Your task to perform on an android device: Open Google Chrome and open the bookmarks view Image 0: 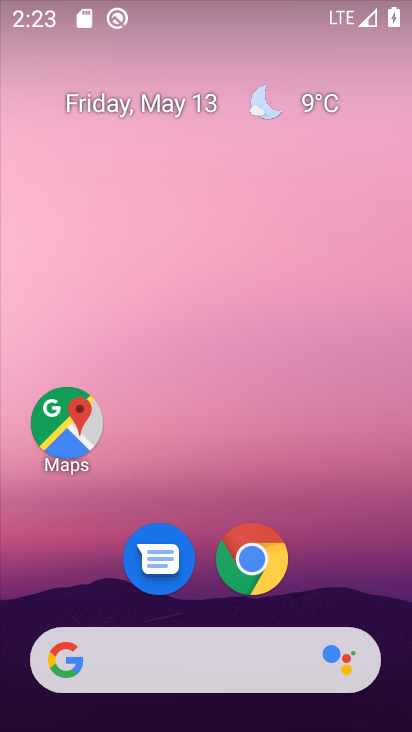
Step 0: click (238, 557)
Your task to perform on an android device: Open Google Chrome and open the bookmarks view Image 1: 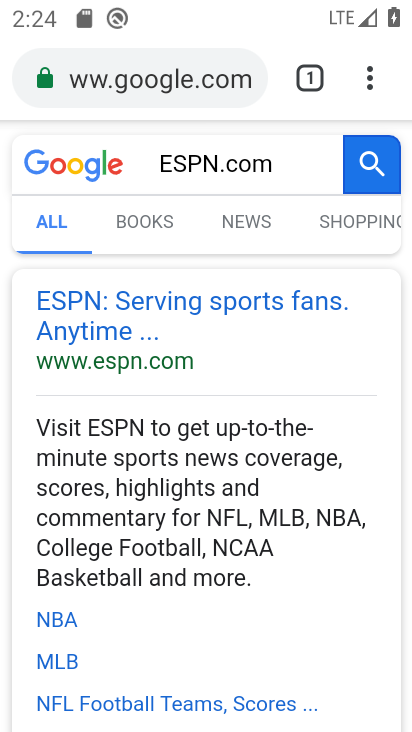
Step 1: click (371, 72)
Your task to perform on an android device: Open Google Chrome and open the bookmarks view Image 2: 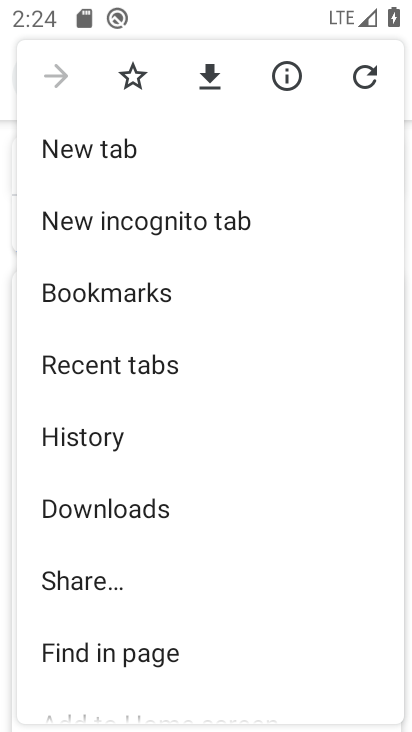
Step 2: click (104, 278)
Your task to perform on an android device: Open Google Chrome and open the bookmarks view Image 3: 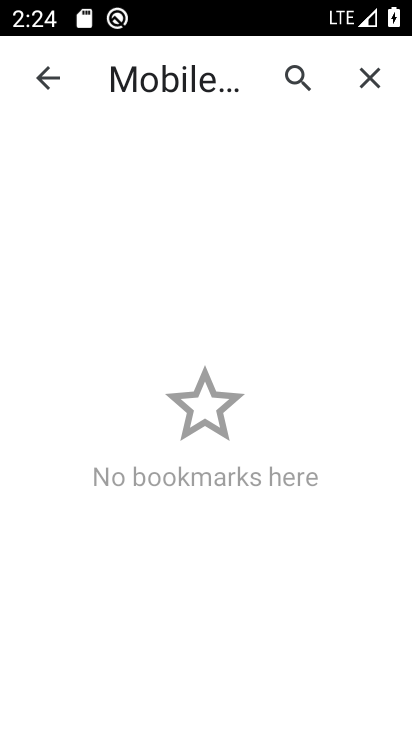
Step 3: click (47, 79)
Your task to perform on an android device: Open Google Chrome and open the bookmarks view Image 4: 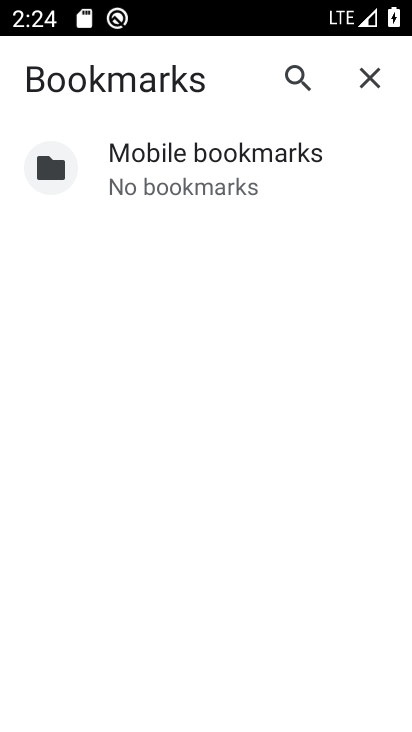
Step 4: click (153, 164)
Your task to perform on an android device: Open Google Chrome and open the bookmarks view Image 5: 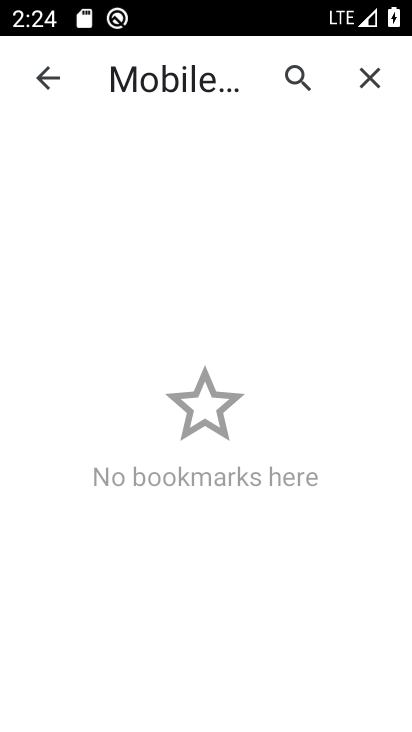
Step 5: click (37, 82)
Your task to perform on an android device: Open Google Chrome and open the bookmarks view Image 6: 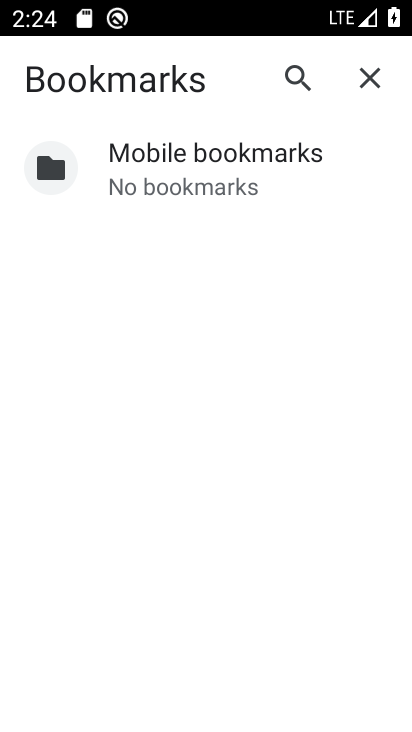
Step 6: task complete